Your task to perform on an android device: What's the weather? Image 0: 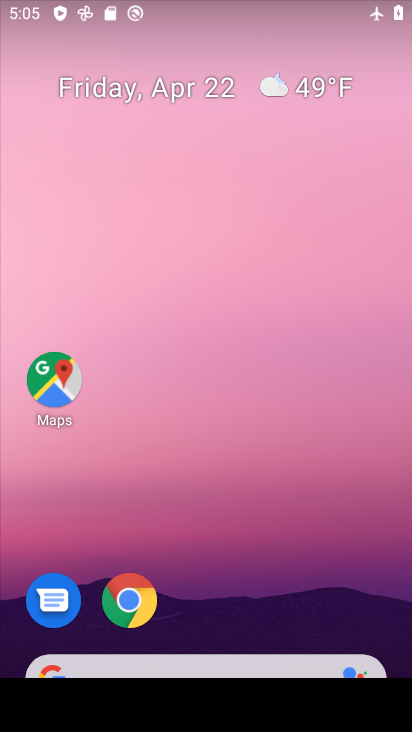
Step 0: drag from (207, 474) to (226, 93)
Your task to perform on an android device: What's the weather? Image 1: 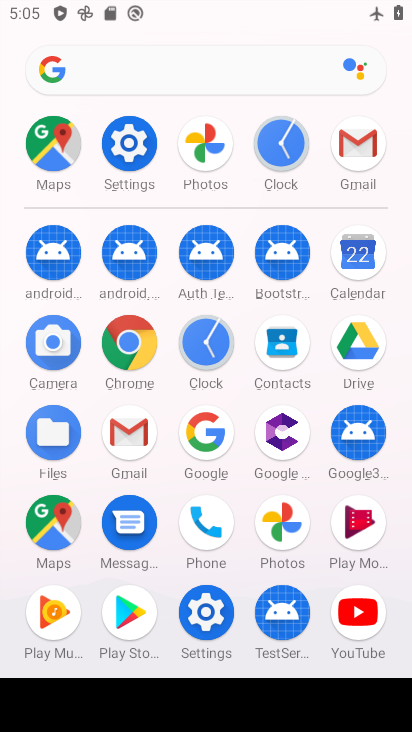
Step 1: click (206, 432)
Your task to perform on an android device: What's the weather? Image 2: 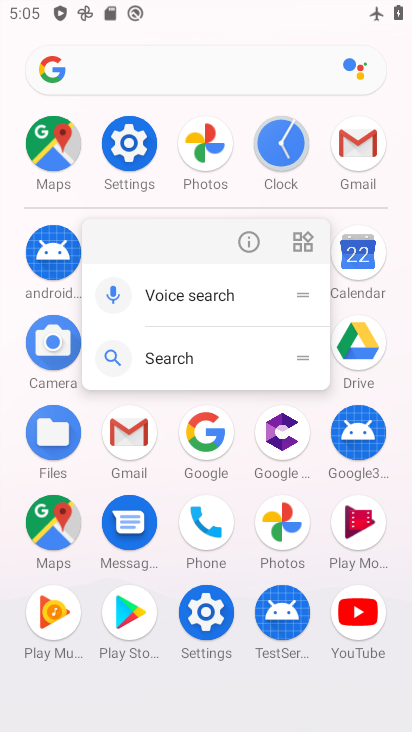
Step 2: click (204, 425)
Your task to perform on an android device: What's the weather? Image 3: 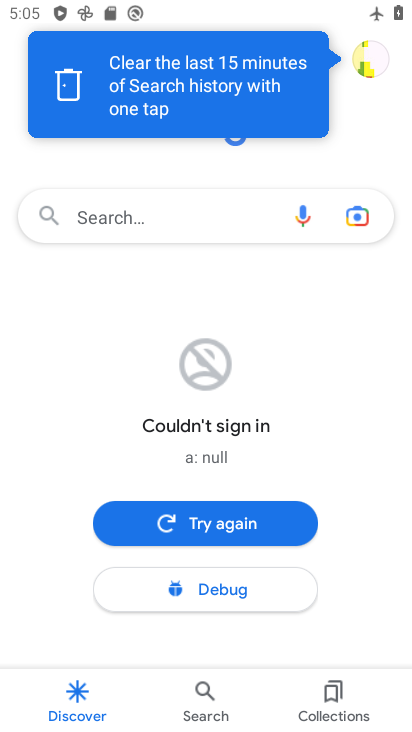
Step 3: click (184, 217)
Your task to perform on an android device: What's the weather? Image 4: 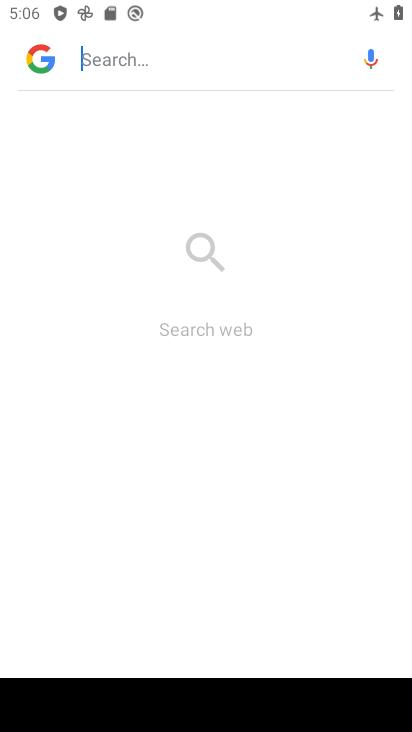
Step 4: task complete